Your task to perform on an android device: Go to wifi settings Image 0: 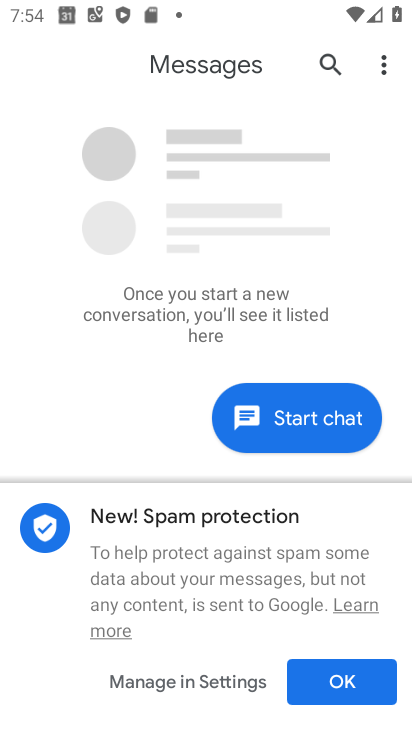
Step 0: press home button
Your task to perform on an android device: Go to wifi settings Image 1: 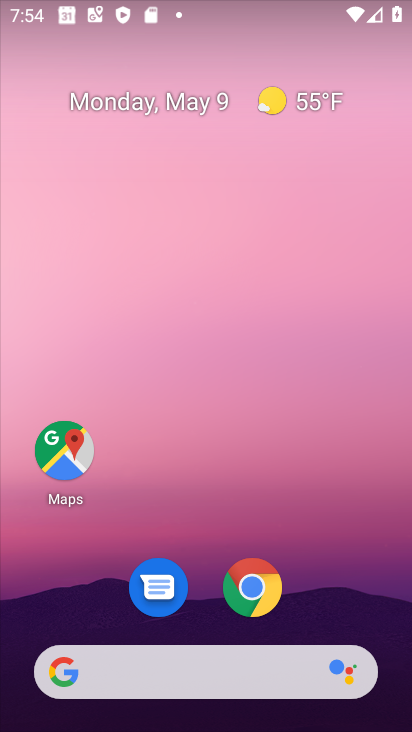
Step 1: drag from (194, 631) to (156, 8)
Your task to perform on an android device: Go to wifi settings Image 2: 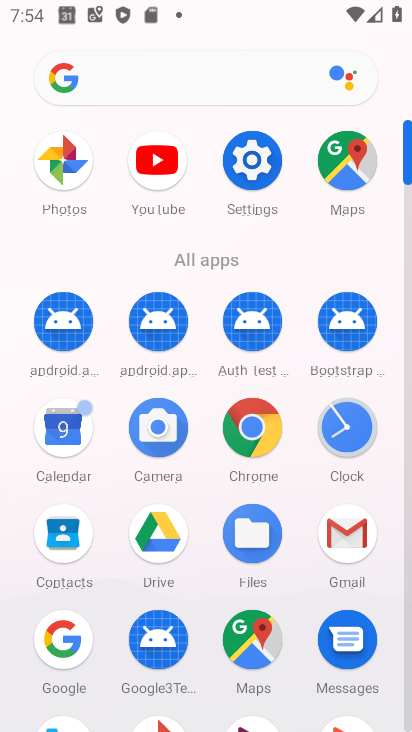
Step 2: click (240, 156)
Your task to perform on an android device: Go to wifi settings Image 3: 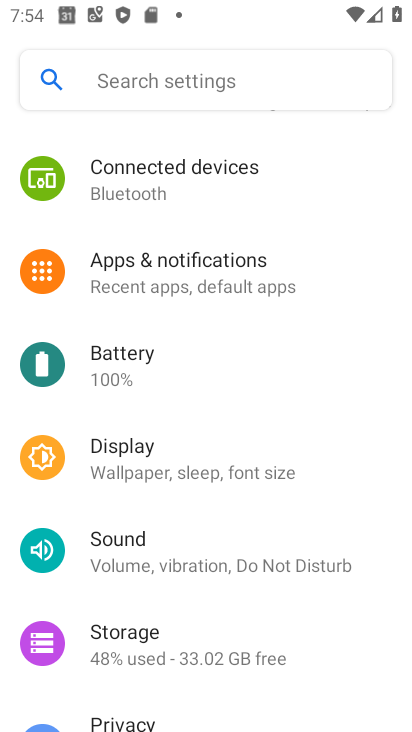
Step 3: drag from (145, 181) to (131, 539)
Your task to perform on an android device: Go to wifi settings Image 4: 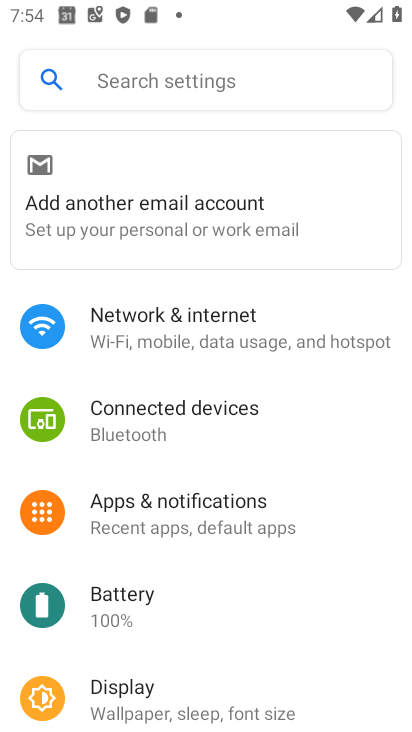
Step 4: click (156, 355)
Your task to perform on an android device: Go to wifi settings Image 5: 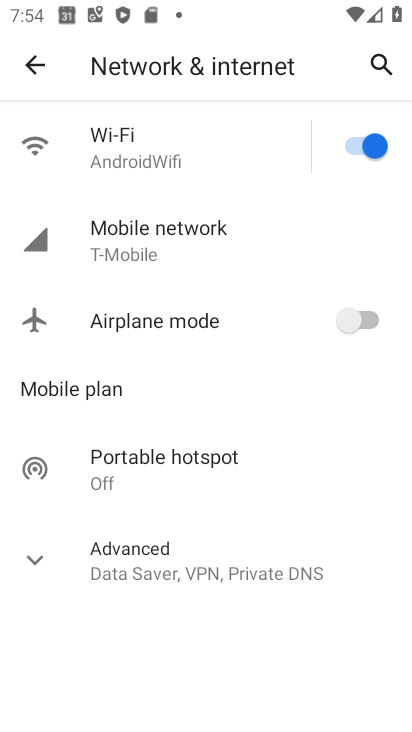
Step 5: click (169, 144)
Your task to perform on an android device: Go to wifi settings Image 6: 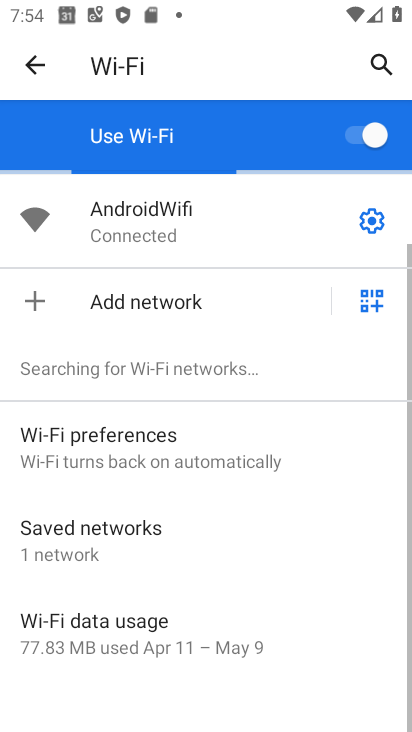
Step 6: click (140, 437)
Your task to perform on an android device: Go to wifi settings Image 7: 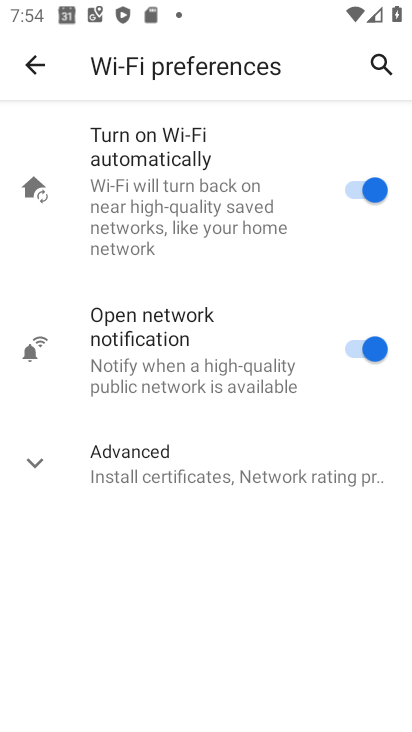
Step 7: task complete